Your task to perform on an android device: Add "bose quietcomfort 35" to the cart on ebay, then select checkout. Image 0: 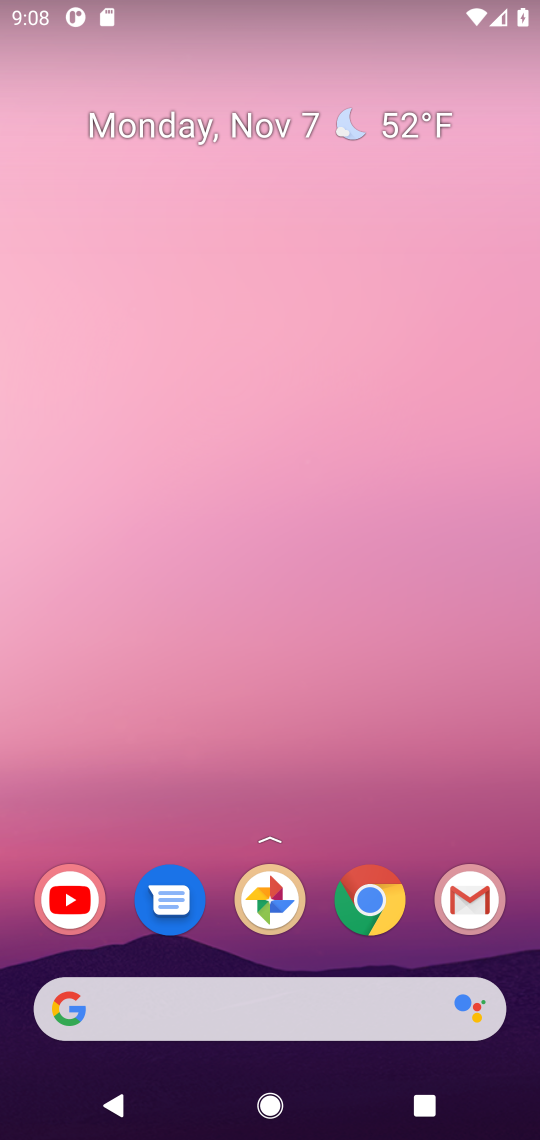
Step 0: task complete